Your task to perform on an android device: visit the assistant section in the google photos Image 0: 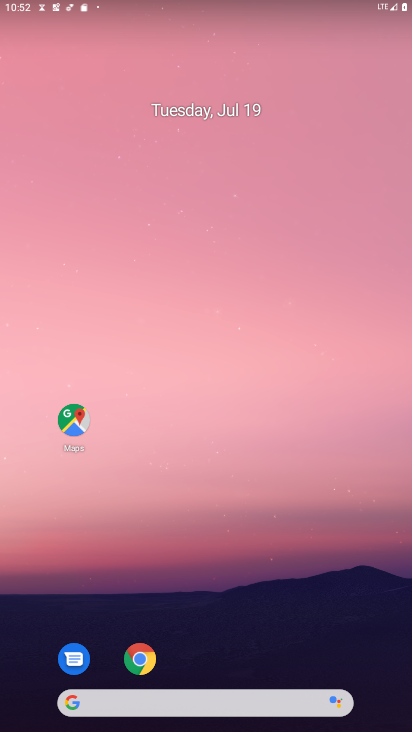
Step 0: drag from (216, 642) to (273, 188)
Your task to perform on an android device: visit the assistant section in the google photos Image 1: 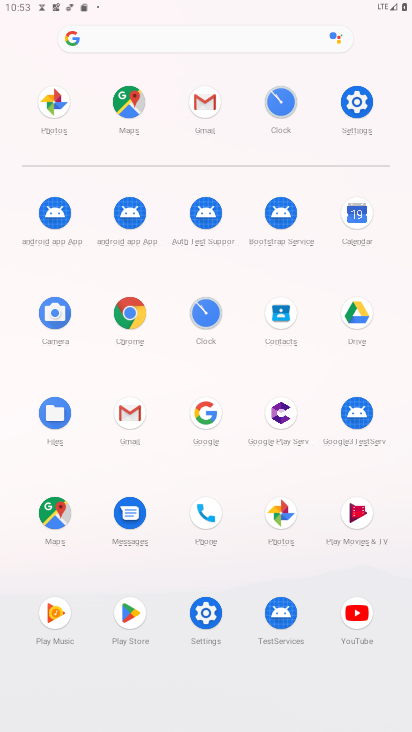
Step 1: click (278, 515)
Your task to perform on an android device: visit the assistant section in the google photos Image 2: 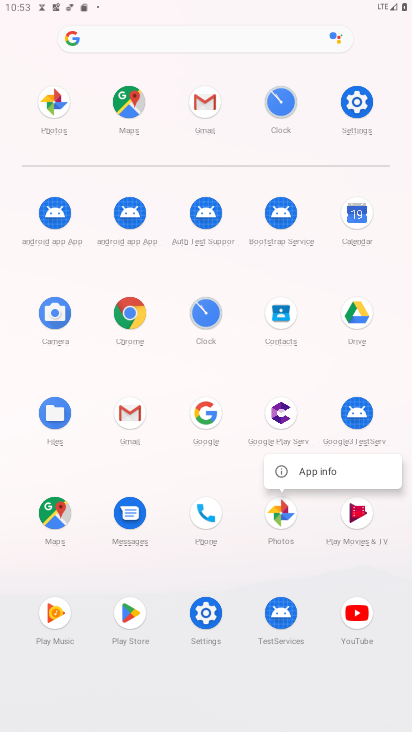
Step 2: click (317, 465)
Your task to perform on an android device: visit the assistant section in the google photos Image 3: 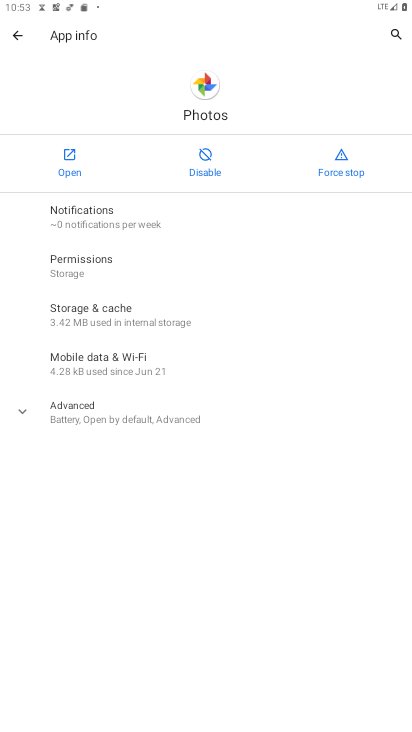
Step 3: click (71, 155)
Your task to perform on an android device: visit the assistant section in the google photos Image 4: 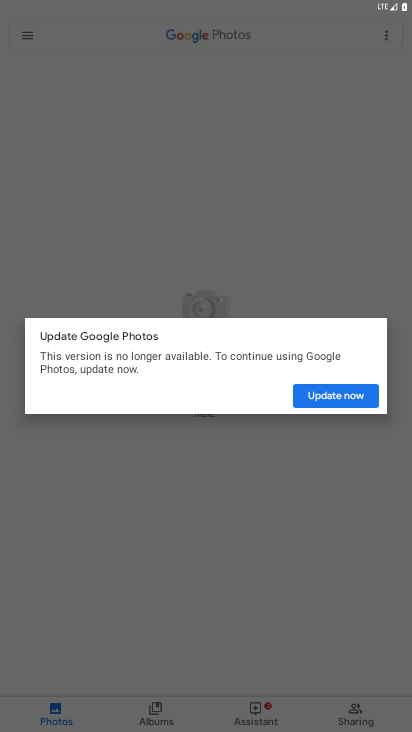
Step 4: click (325, 398)
Your task to perform on an android device: visit the assistant section in the google photos Image 5: 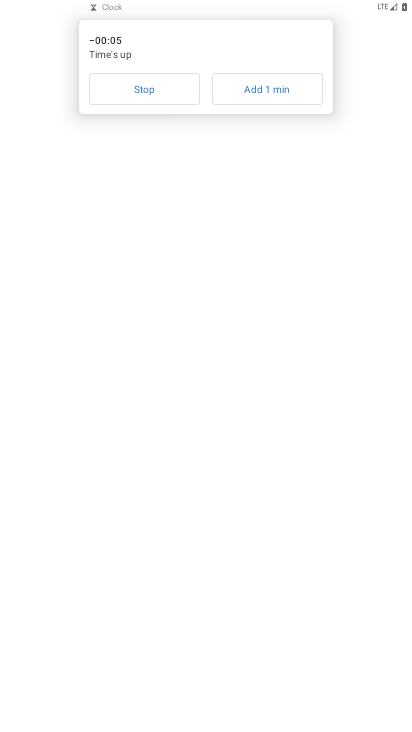
Step 5: click (147, 95)
Your task to perform on an android device: visit the assistant section in the google photos Image 6: 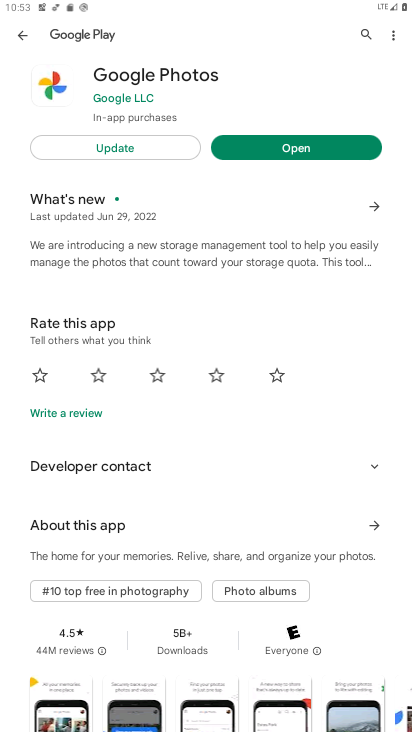
Step 6: click (286, 155)
Your task to perform on an android device: visit the assistant section in the google photos Image 7: 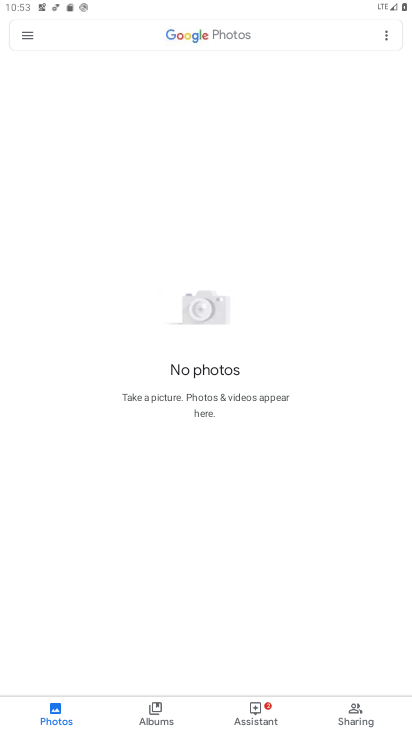
Step 7: click (280, 710)
Your task to perform on an android device: visit the assistant section in the google photos Image 8: 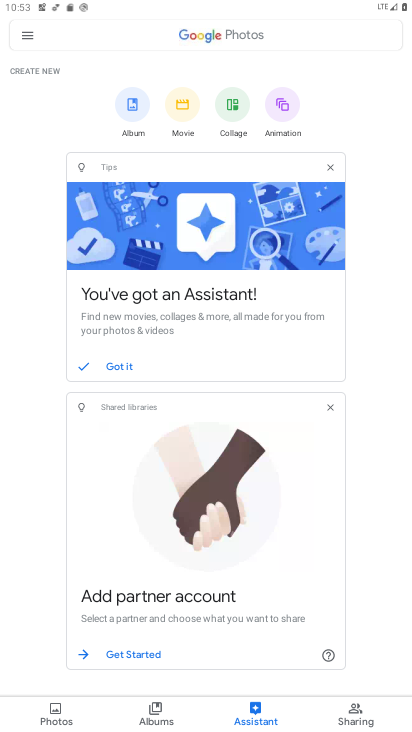
Step 8: task complete